Your task to perform on an android device: toggle translation in the chrome app Image 0: 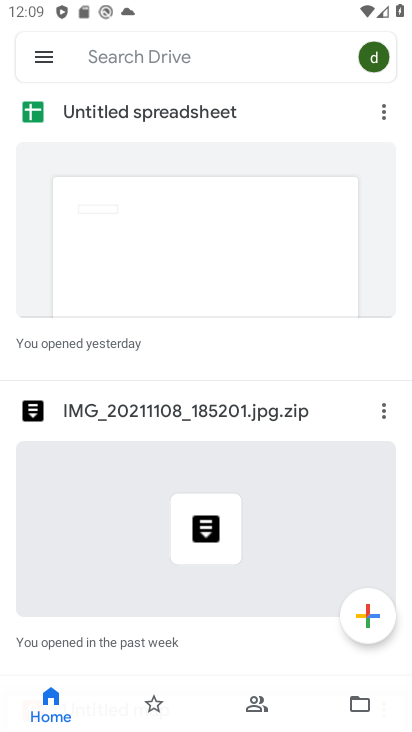
Step 0: press back button
Your task to perform on an android device: toggle translation in the chrome app Image 1: 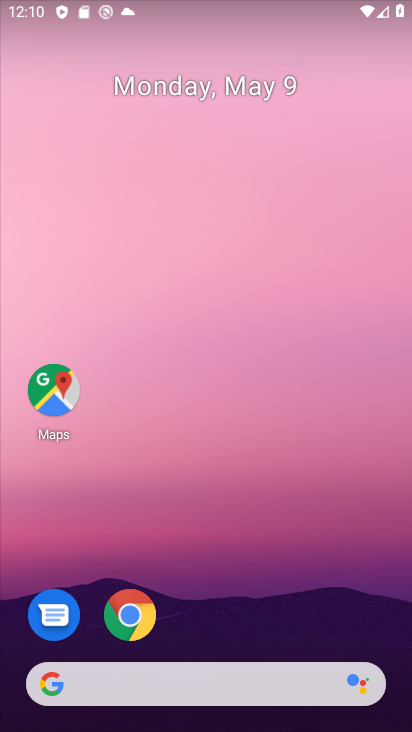
Step 1: click (129, 614)
Your task to perform on an android device: toggle translation in the chrome app Image 2: 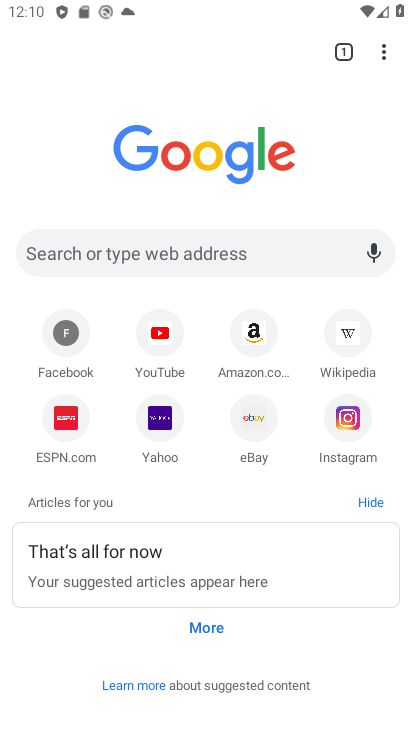
Step 2: click (385, 51)
Your task to perform on an android device: toggle translation in the chrome app Image 3: 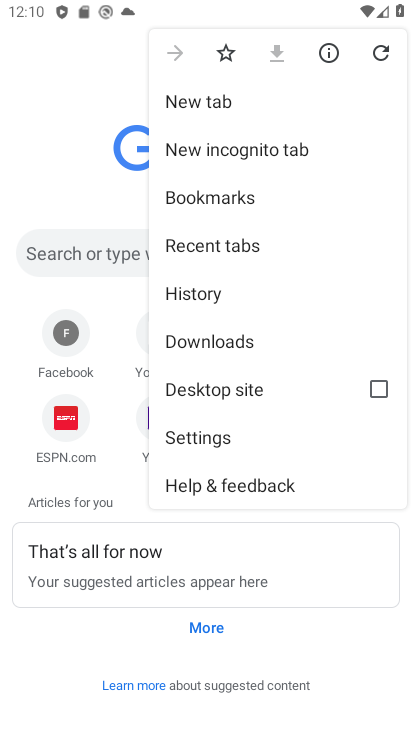
Step 3: click (203, 438)
Your task to perform on an android device: toggle translation in the chrome app Image 4: 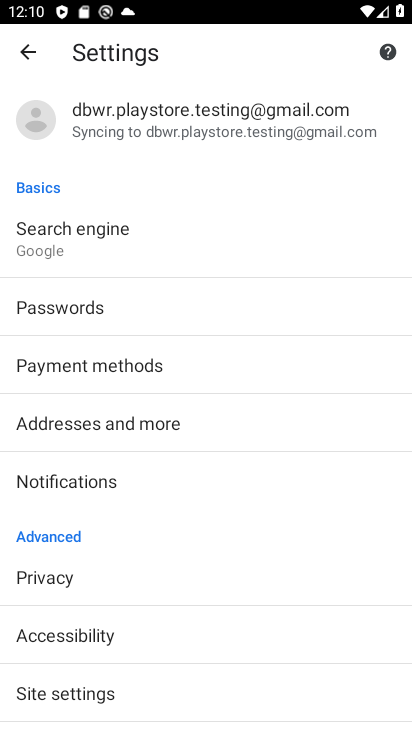
Step 4: drag from (116, 558) to (127, 452)
Your task to perform on an android device: toggle translation in the chrome app Image 5: 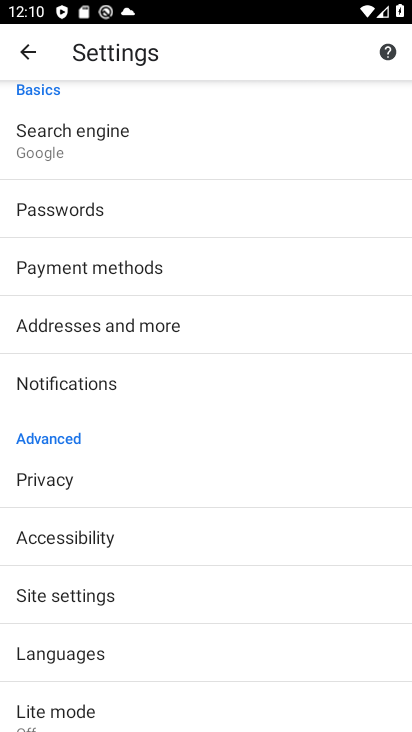
Step 5: drag from (100, 615) to (171, 505)
Your task to perform on an android device: toggle translation in the chrome app Image 6: 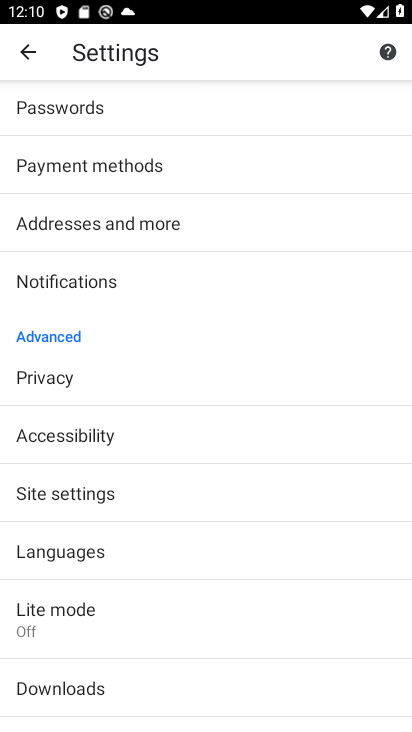
Step 6: click (95, 556)
Your task to perform on an android device: toggle translation in the chrome app Image 7: 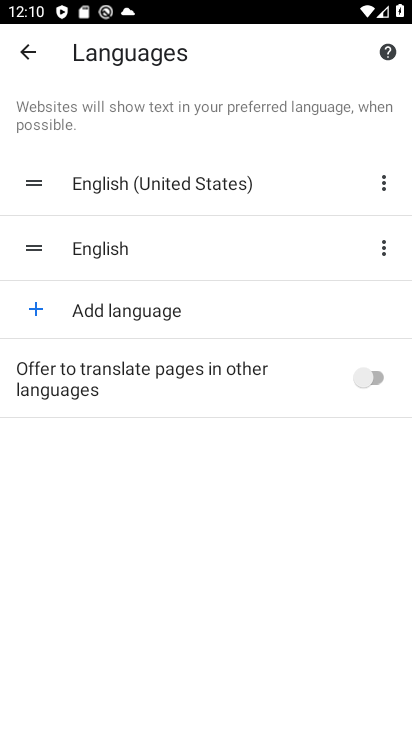
Step 7: click (369, 369)
Your task to perform on an android device: toggle translation in the chrome app Image 8: 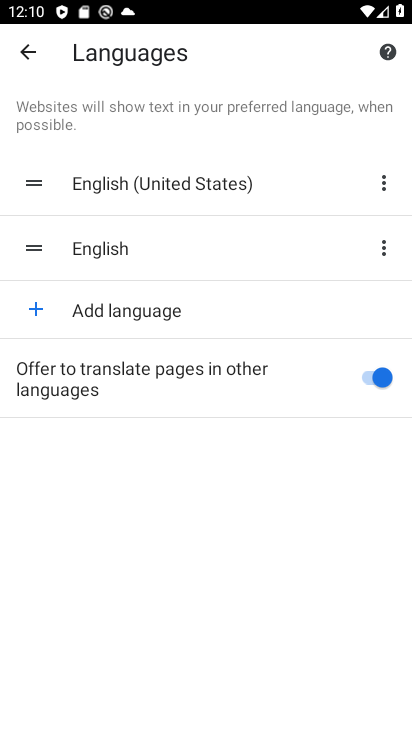
Step 8: task complete